Your task to perform on an android device: Search for sushi restaurants on Maps Image 0: 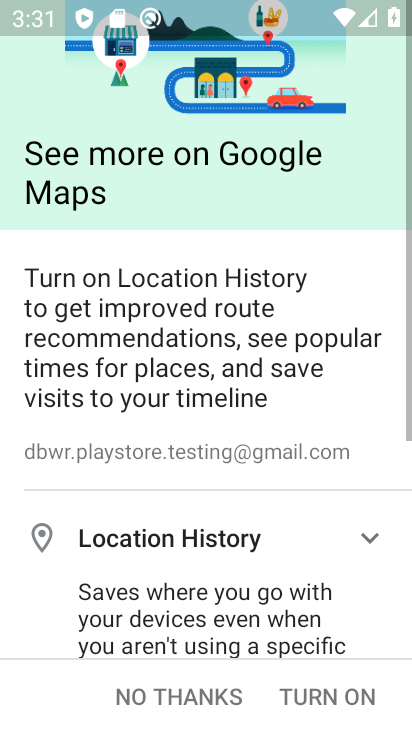
Step 0: press home button
Your task to perform on an android device: Search for sushi restaurants on Maps Image 1: 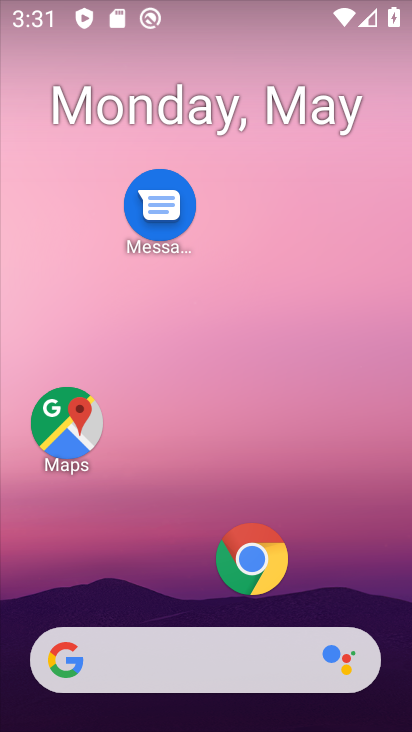
Step 1: click (55, 430)
Your task to perform on an android device: Search for sushi restaurants on Maps Image 2: 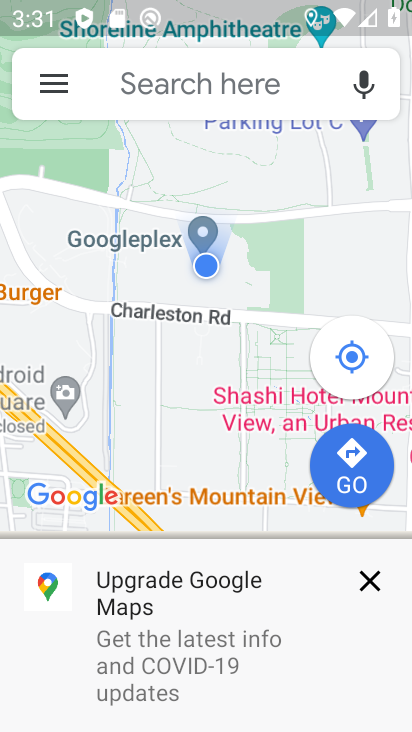
Step 2: click (177, 84)
Your task to perform on an android device: Search for sushi restaurants on Maps Image 3: 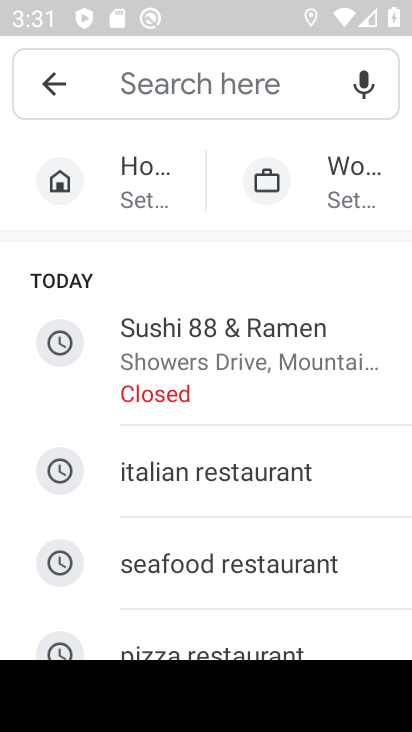
Step 3: type "sushi restaurants"
Your task to perform on an android device: Search for sushi restaurants on Maps Image 4: 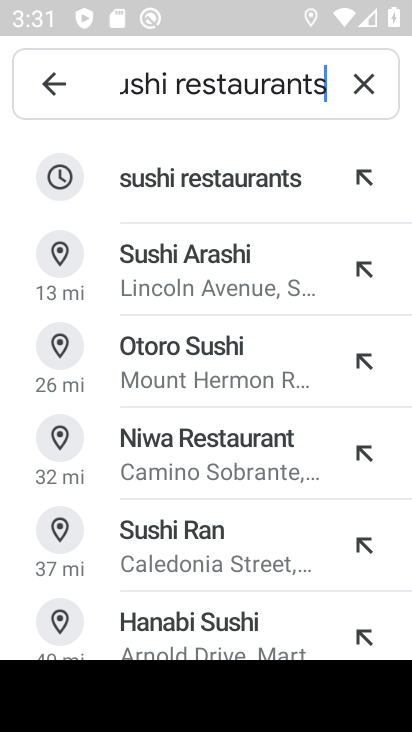
Step 4: click (212, 170)
Your task to perform on an android device: Search for sushi restaurants on Maps Image 5: 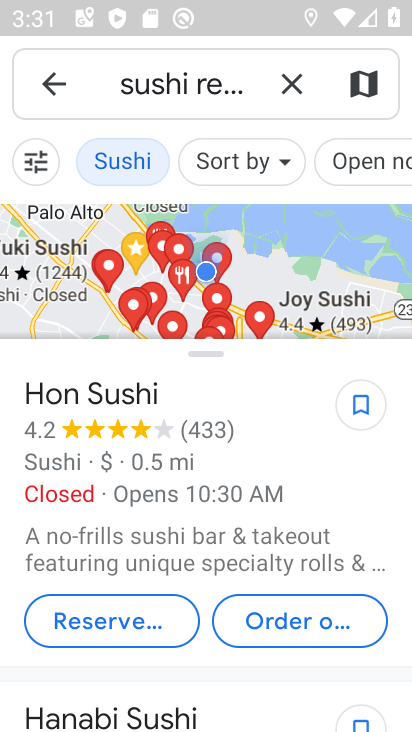
Step 5: task complete